Your task to perform on an android device: toggle airplane mode Image 0: 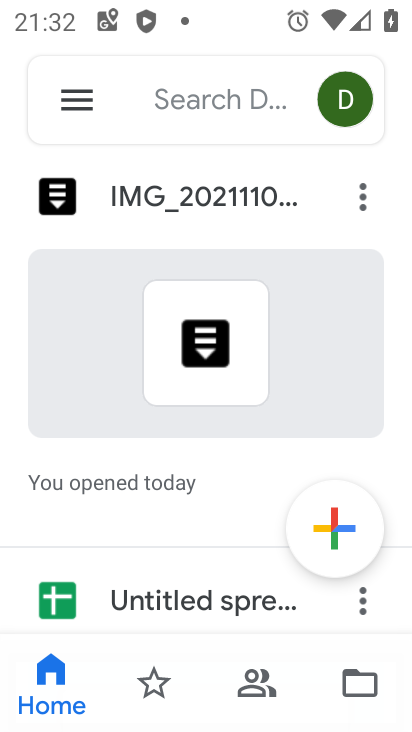
Step 0: press home button
Your task to perform on an android device: toggle airplane mode Image 1: 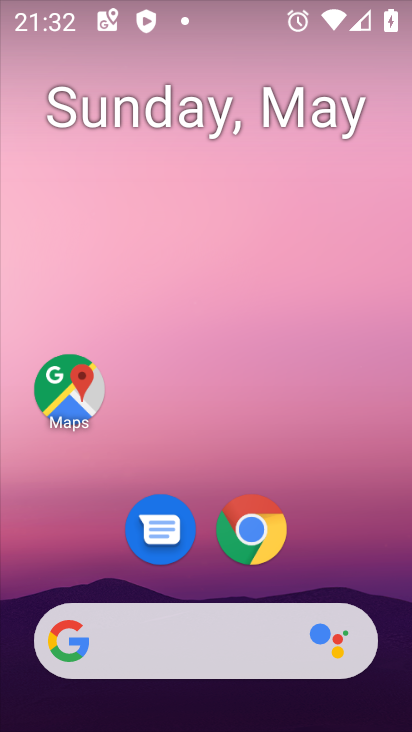
Step 1: drag from (314, 586) to (360, 16)
Your task to perform on an android device: toggle airplane mode Image 2: 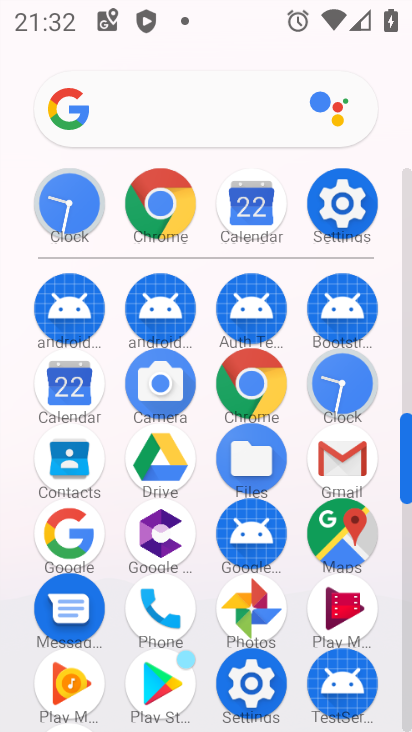
Step 2: click (342, 201)
Your task to perform on an android device: toggle airplane mode Image 3: 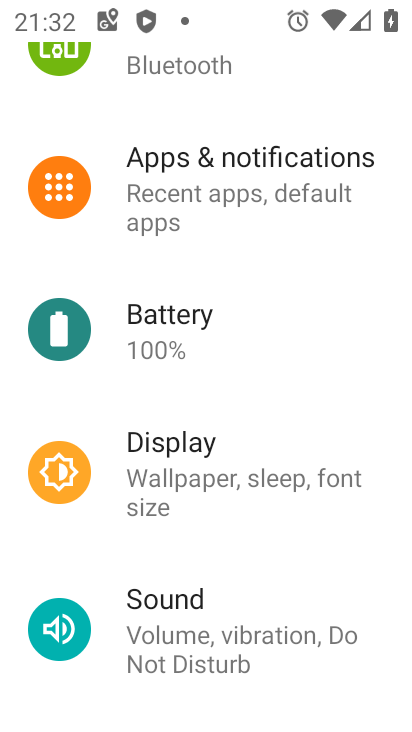
Step 3: drag from (370, 127) to (324, 648)
Your task to perform on an android device: toggle airplane mode Image 4: 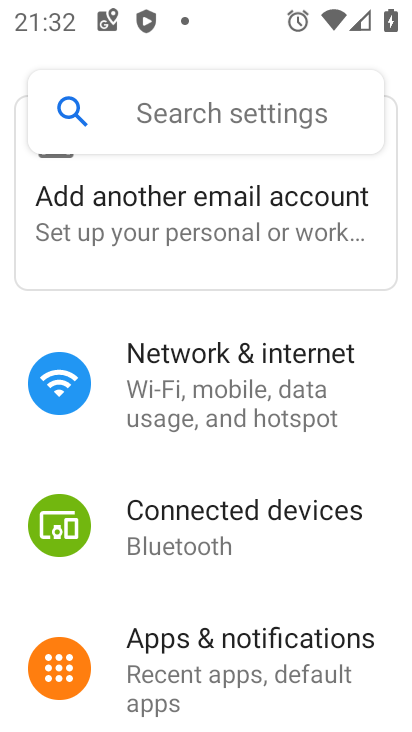
Step 4: click (184, 402)
Your task to perform on an android device: toggle airplane mode Image 5: 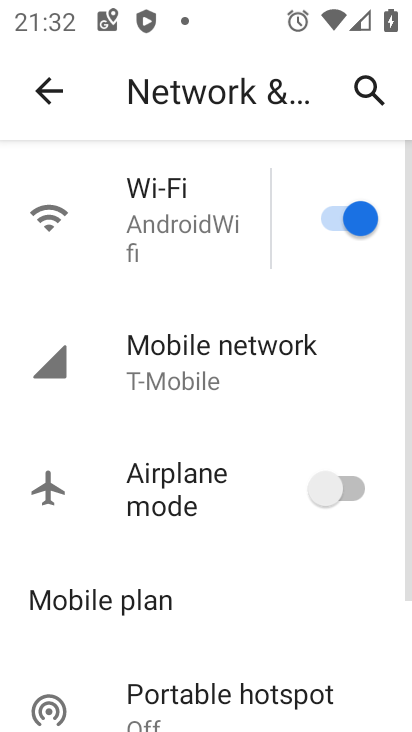
Step 5: click (318, 494)
Your task to perform on an android device: toggle airplane mode Image 6: 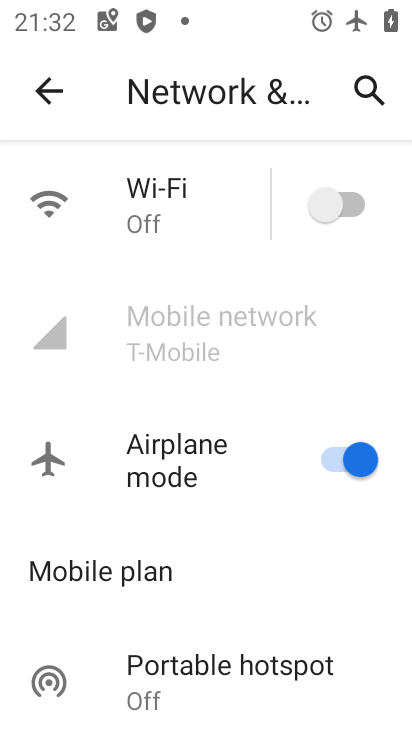
Step 6: task complete